Your task to perform on an android device: Go to display settings Image 0: 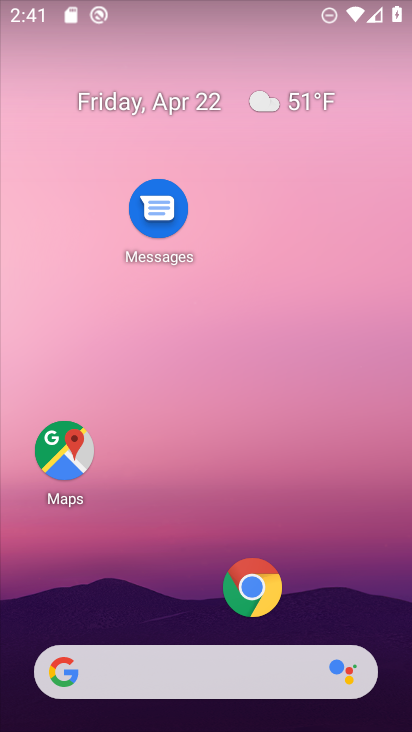
Step 0: drag from (181, 613) to (251, 189)
Your task to perform on an android device: Go to display settings Image 1: 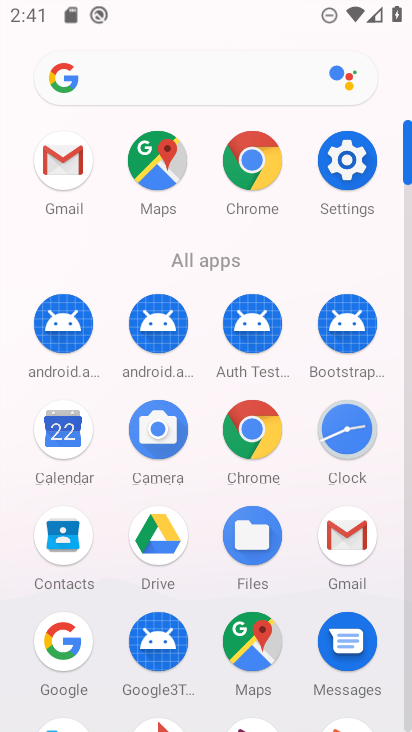
Step 1: click (342, 175)
Your task to perform on an android device: Go to display settings Image 2: 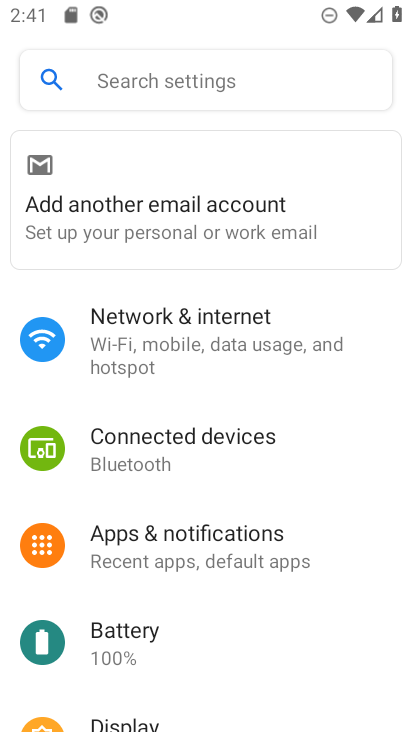
Step 2: drag from (235, 545) to (278, 303)
Your task to perform on an android device: Go to display settings Image 3: 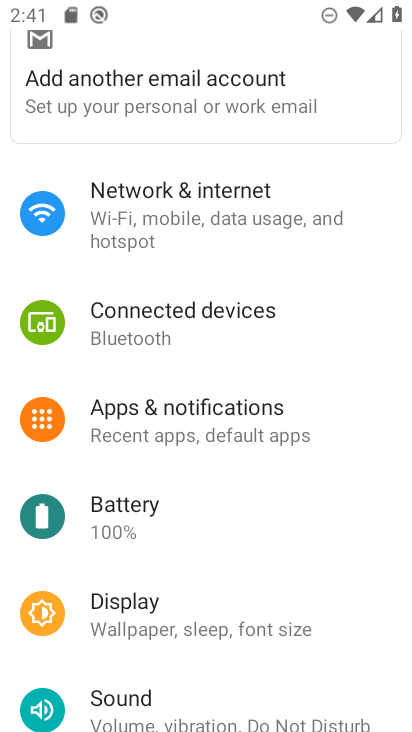
Step 3: click (110, 609)
Your task to perform on an android device: Go to display settings Image 4: 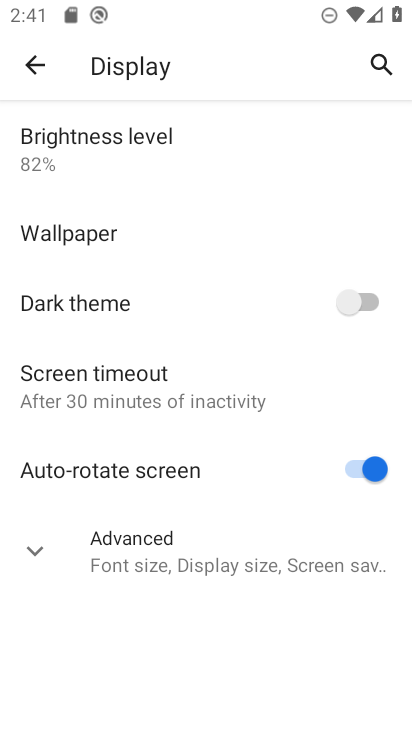
Step 4: task complete